Your task to perform on an android device: open app "ZOOM Cloud Meetings" Image 0: 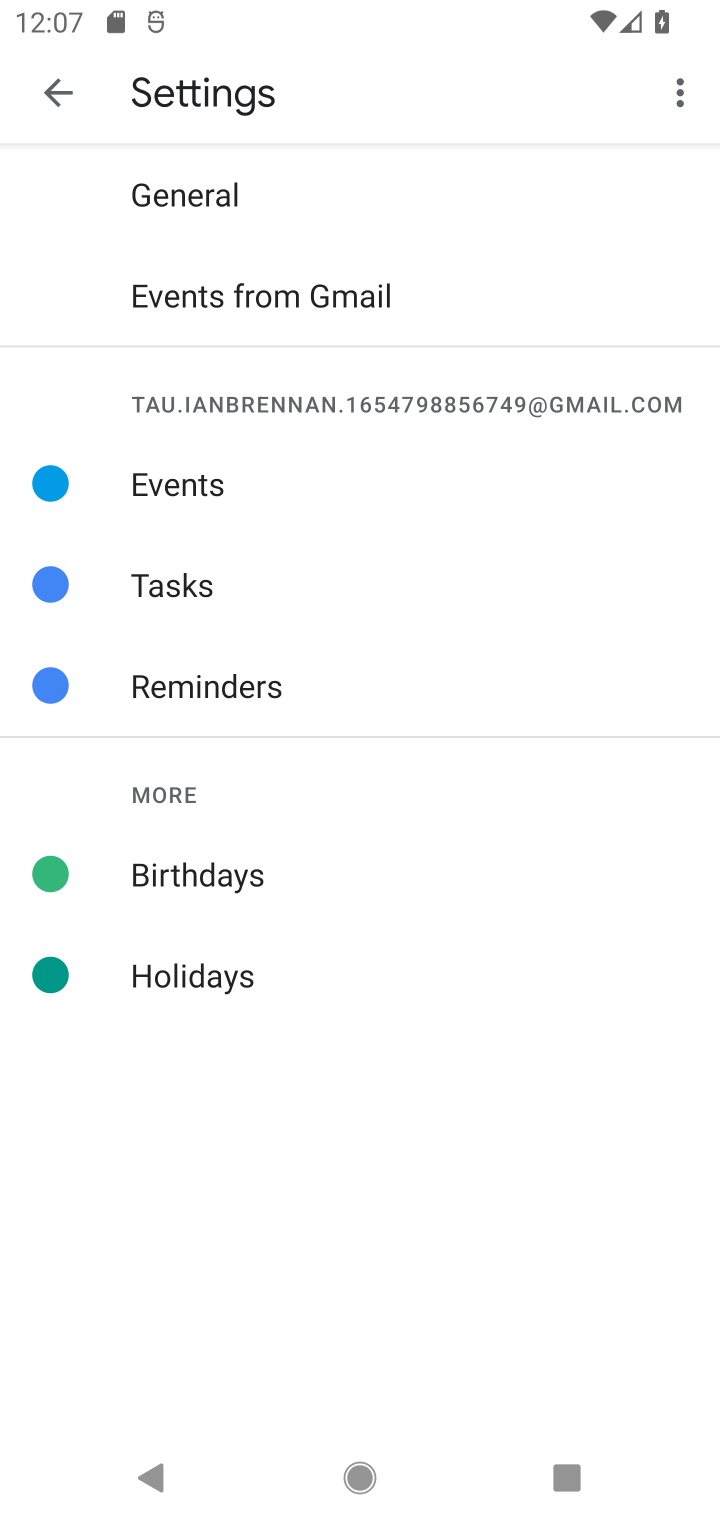
Step 0: press home button
Your task to perform on an android device: open app "ZOOM Cloud Meetings" Image 1: 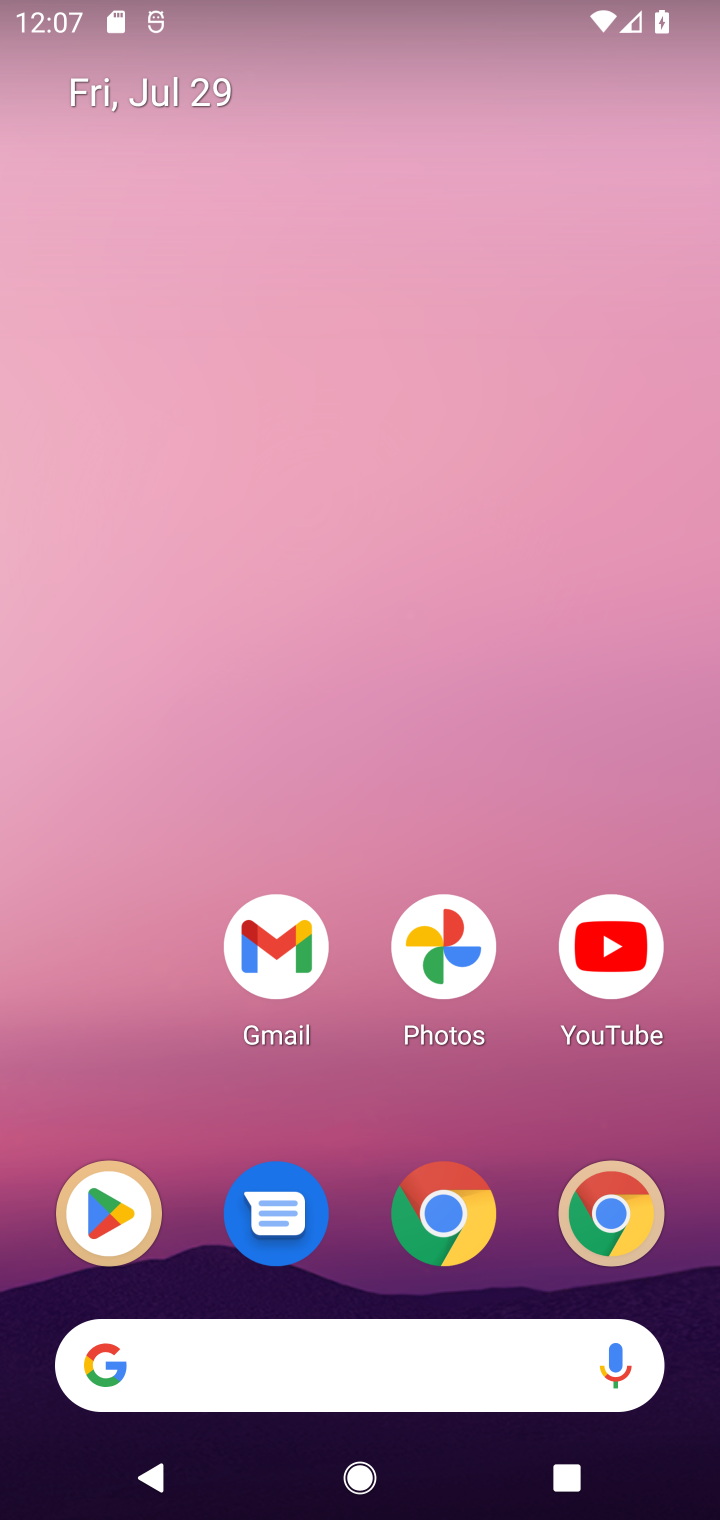
Step 1: drag from (430, 1190) to (430, 581)
Your task to perform on an android device: open app "ZOOM Cloud Meetings" Image 2: 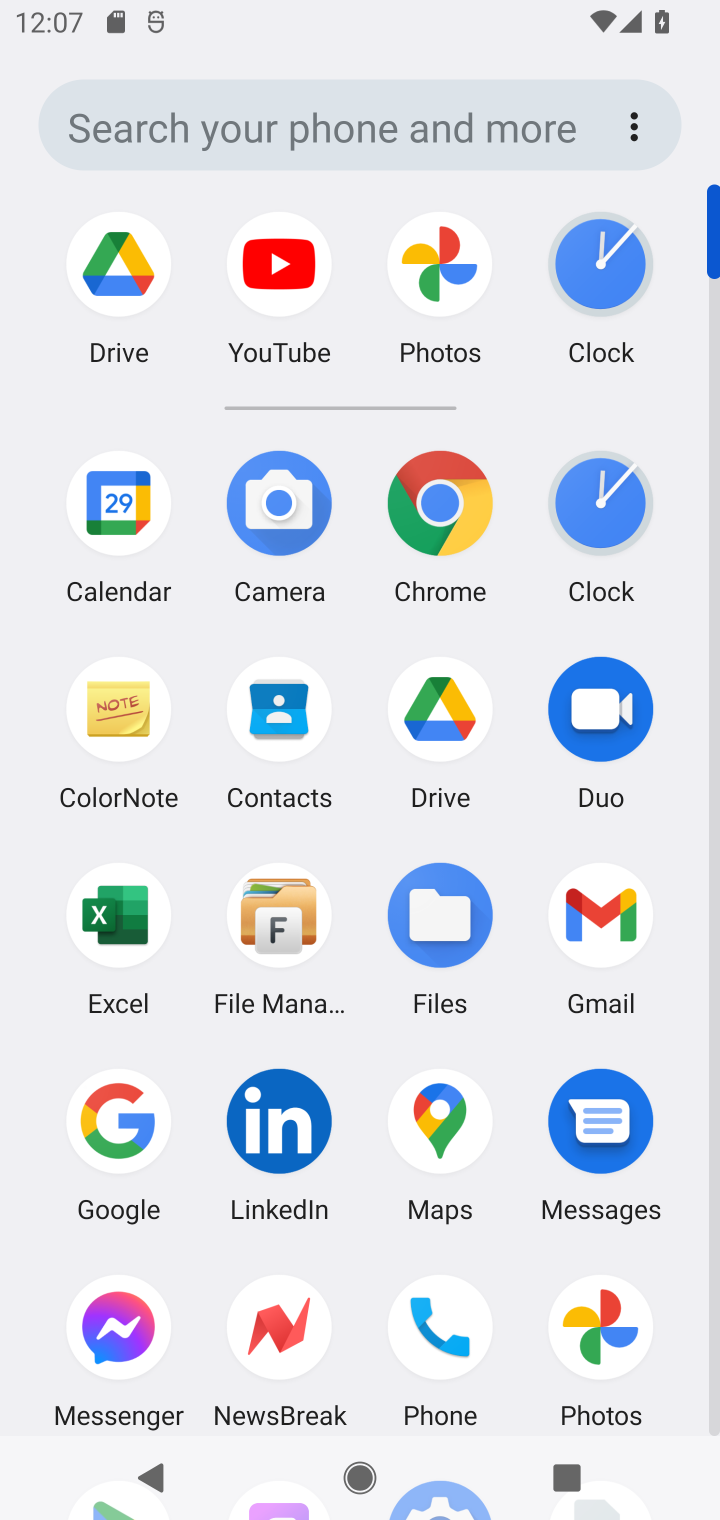
Step 2: drag from (540, 1284) to (529, 562)
Your task to perform on an android device: open app "ZOOM Cloud Meetings" Image 3: 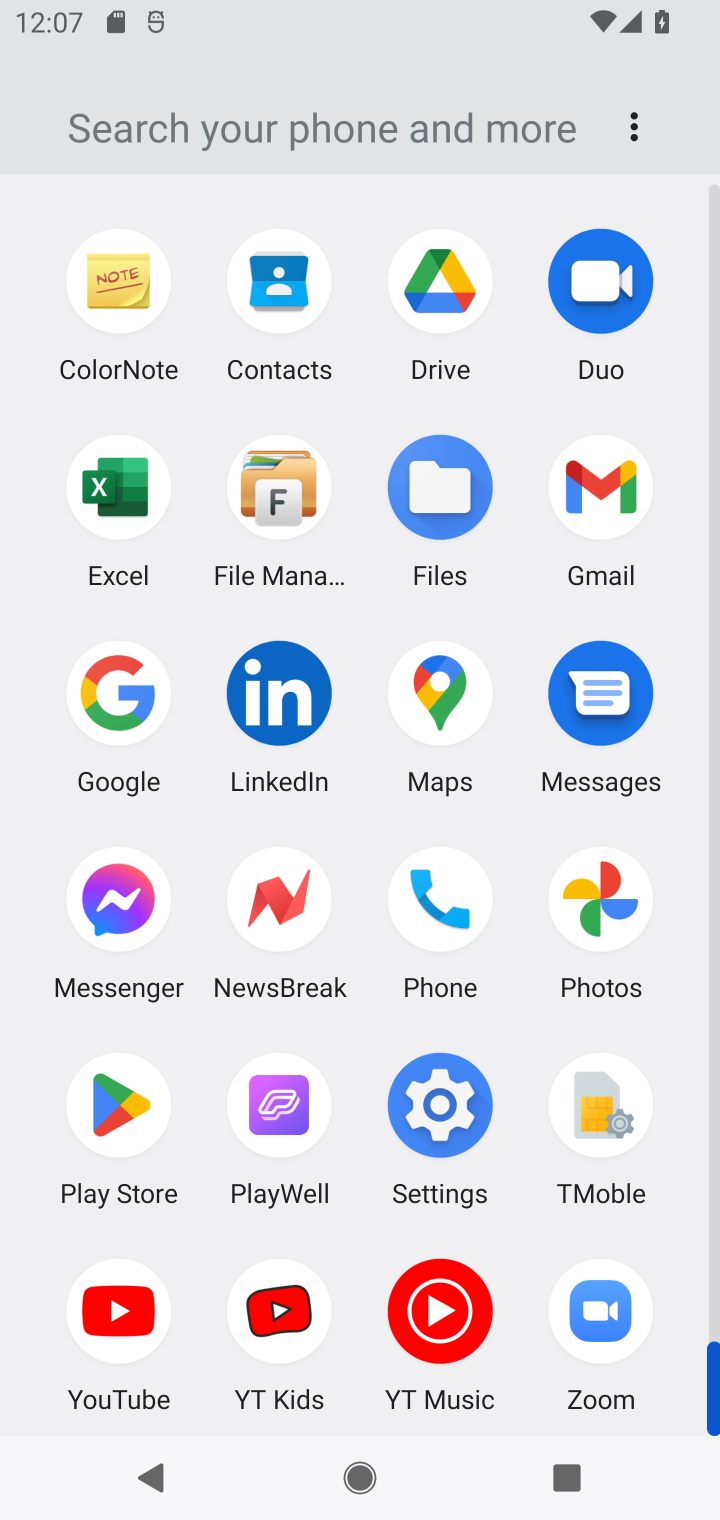
Step 3: click (619, 1321)
Your task to perform on an android device: open app "ZOOM Cloud Meetings" Image 4: 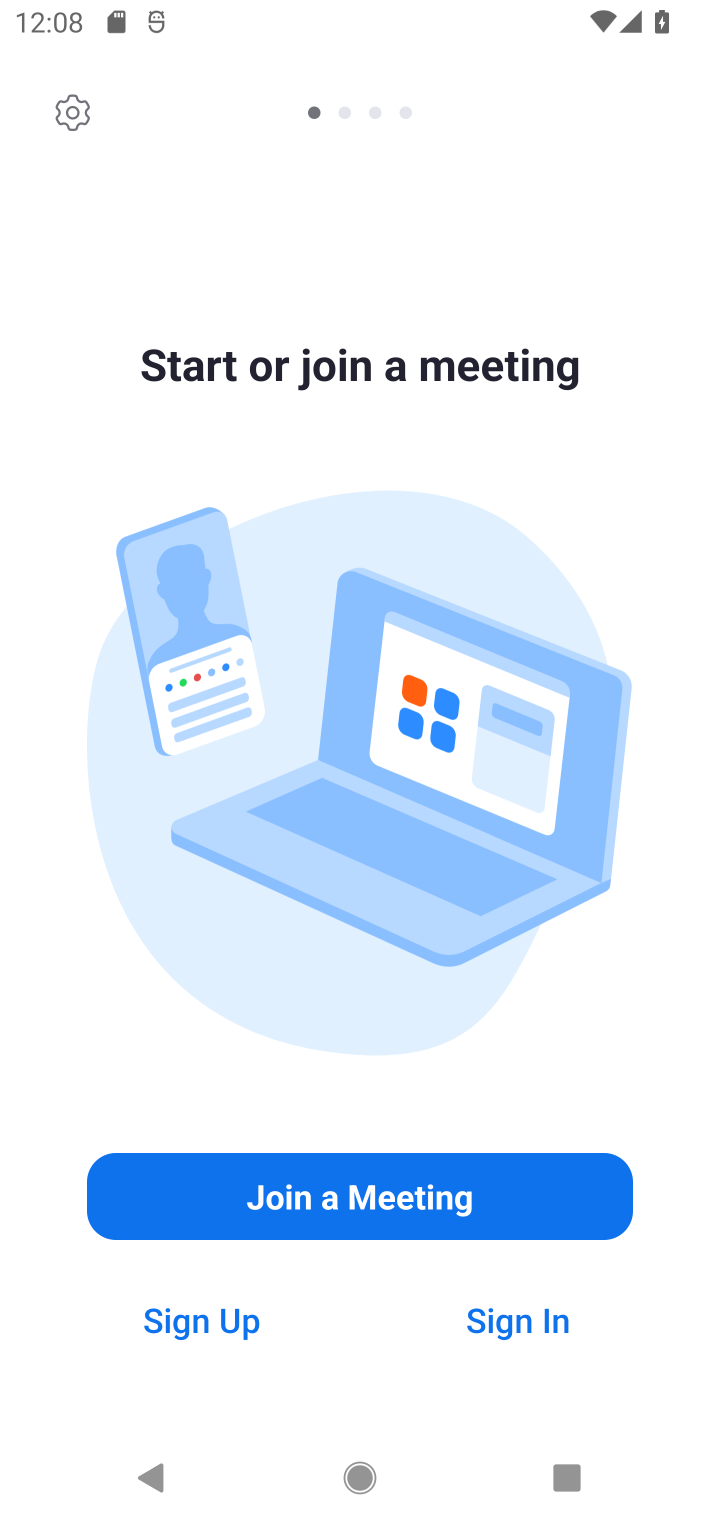
Step 4: task complete